Your task to perform on an android device: see creations saved in the google photos Image 0: 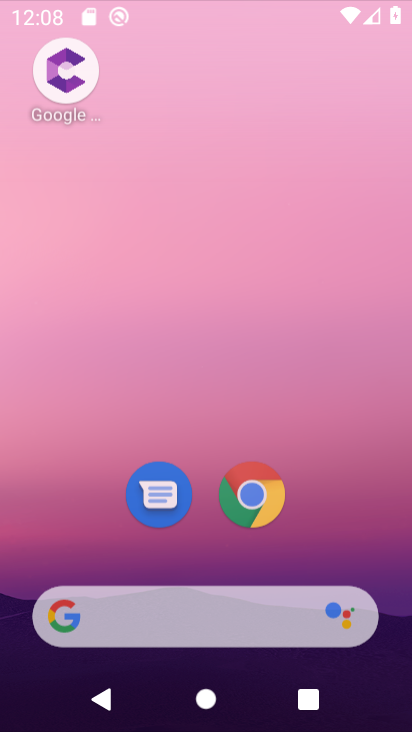
Step 0: drag from (383, 234) to (409, 132)
Your task to perform on an android device: see creations saved in the google photos Image 1: 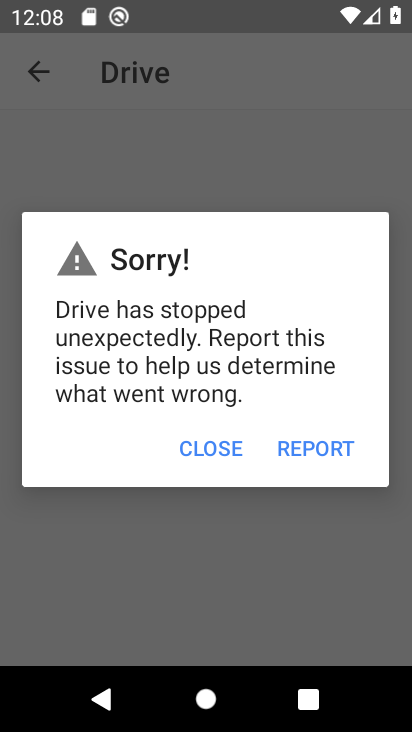
Step 1: press home button
Your task to perform on an android device: see creations saved in the google photos Image 2: 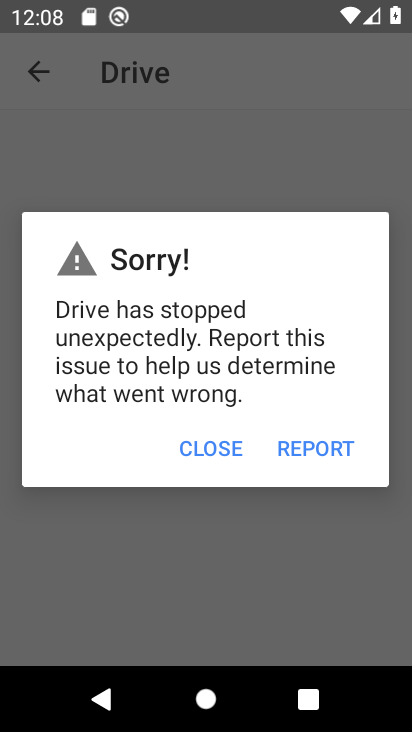
Step 2: drag from (409, 132) to (381, 403)
Your task to perform on an android device: see creations saved in the google photos Image 3: 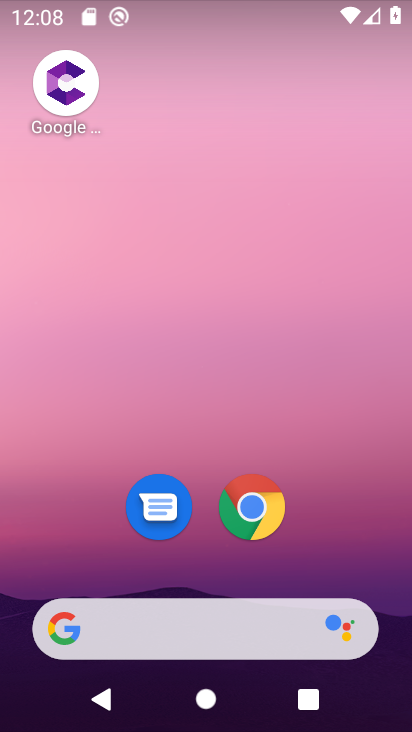
Step 3: drag from (54, 583) to (157, 108)
Your task to perform on an android device: see creations saved in the google photos Image 4: 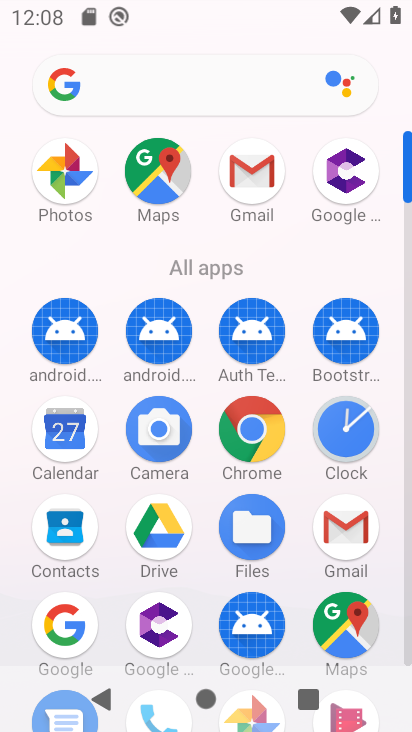
Step 4: drag from (151, 641) to (199, 383)
Your task to perform on an android device: see creations saved in the google photos Image 5: 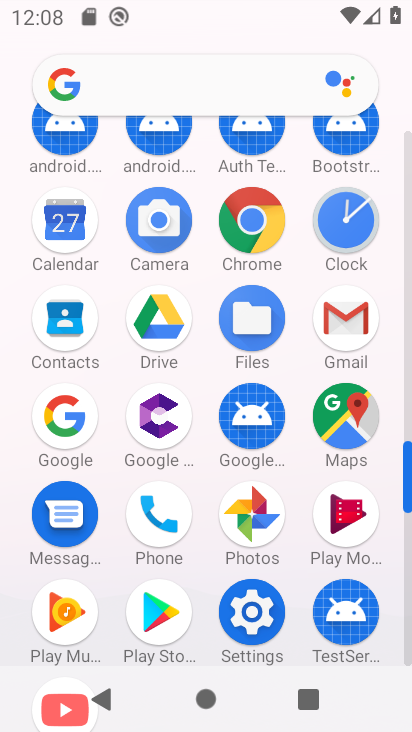
Step 5: click (267, 530)
Your task to perform on an android device: see creations saved in the google photos Image 6: 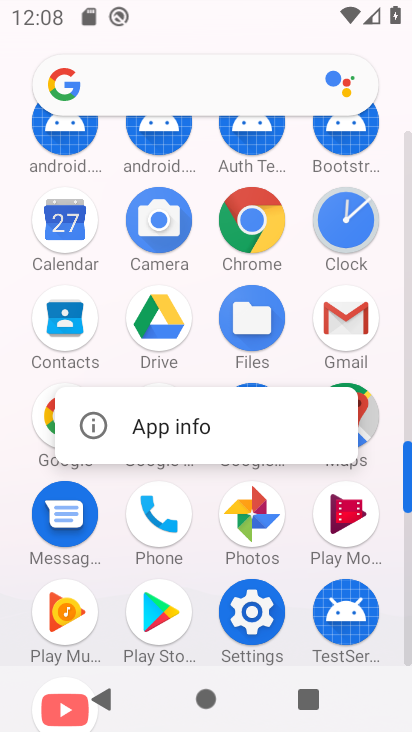
Step 6: click (255, 491)
Your task to perform on an android device: see creations saved in the google photos Image 7: 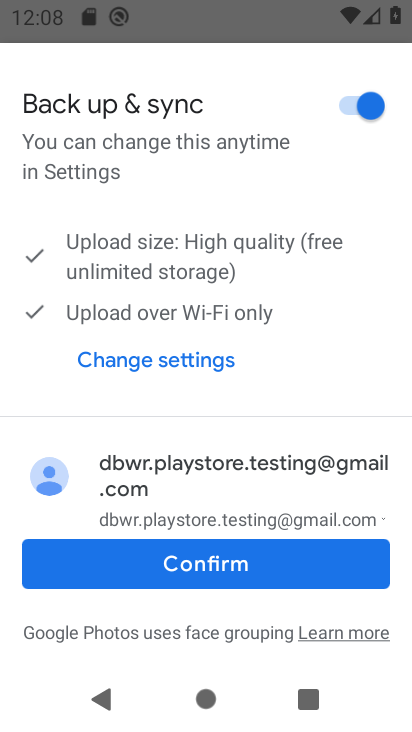
Step 7: click (229, 564)
Your task to perform on an android device: see creations saved in the google photos Image 8: 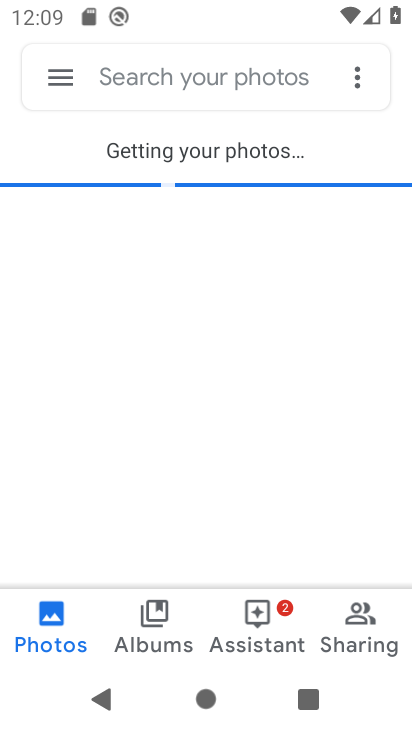
Step 8: click (189, 82)
Your task to perform on an android device: see creations saved in the google photos Image 9: 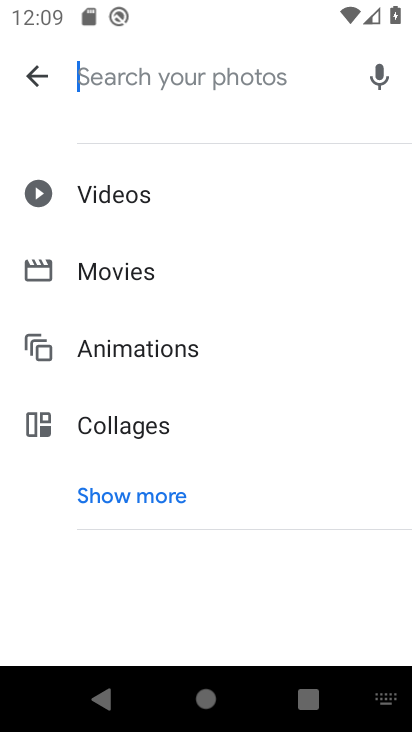
Step 9: click (149, 492)
Your task to perform on an android device: see creations saved in the google photos Image 10: 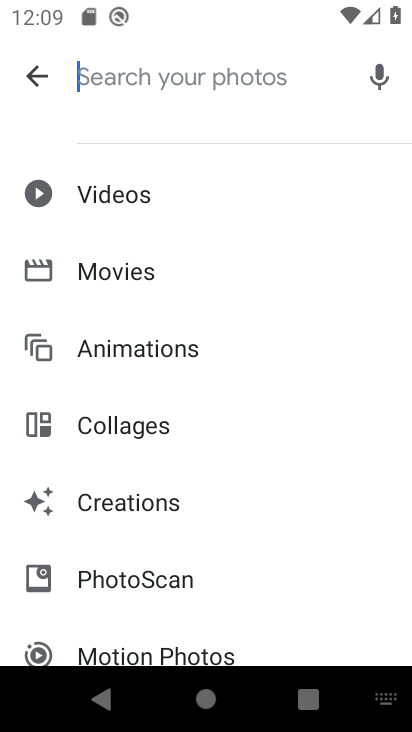
Step 10: click (176, 503)
Your task to perform on an android device: see creations saved in the google photos Image 11: 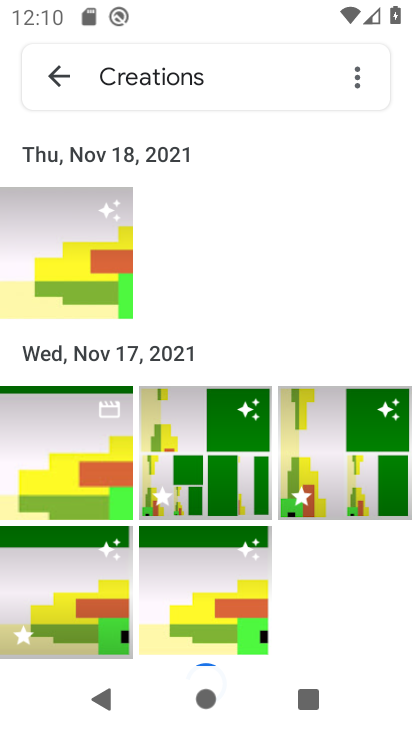
Step 11: task complete